Your task to perform on an android device: Open the calendar app, open the side menu, and click the "Day" option Image 0: 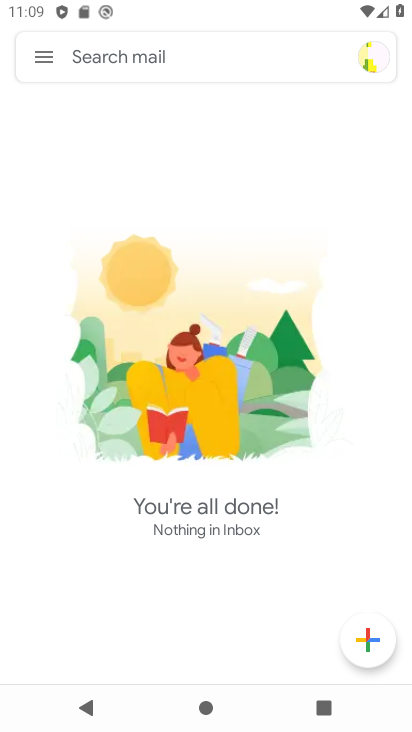
Step 0: press home button
Your task to perform on an android device: Open the calendar app, open the side menu, and click the "Day" option Image 1: 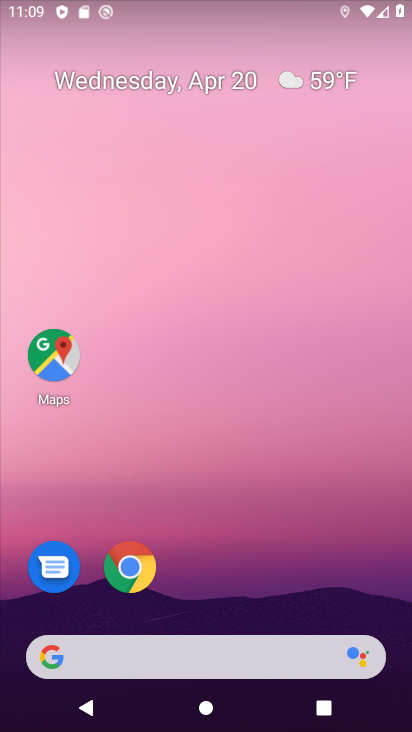
Step 1: drag from (256, 595) to (260, 152)
Your task to perform on an android device: Open the calendar app, open the side menu, and click the "Day" option Image 2: 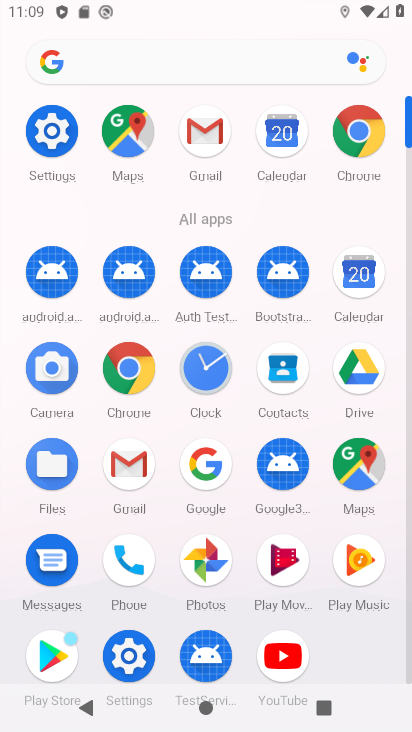
Step 2: click (347, 272)
Your task to perform on an android device: Open the calendar app, open the side menu, and click the "Day" option Image 3: 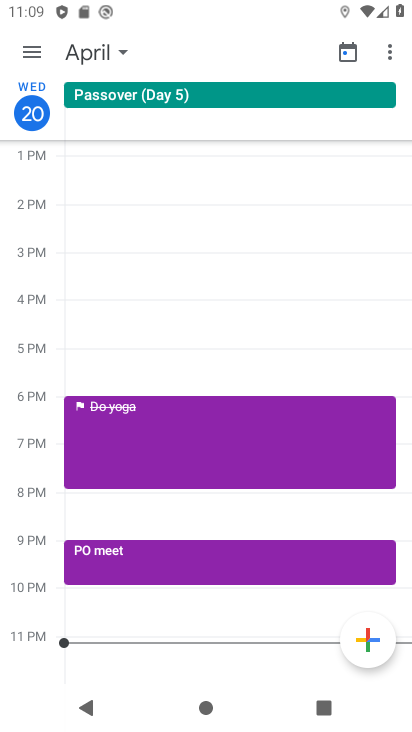
Step 3: click (15, 55)
Your task to perform on an android device: Open the calendar app, open the side menu, and click the "Day" option Image 4: 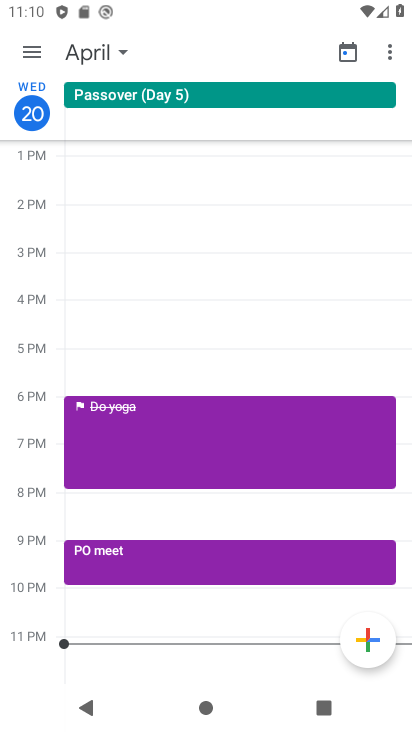
Step 4: click (20, 55)
Your task to perform on an android device: Open the calendar app, open the side menu, and click the "Day" option Image 5: 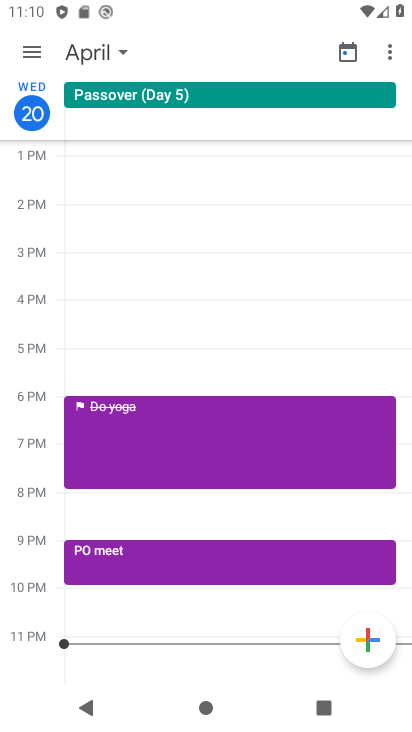
Step 5: click (37, 54)
Your task to perform on an android device: Open the calendar app, open the side menu, and click the "Day" option Image 6: 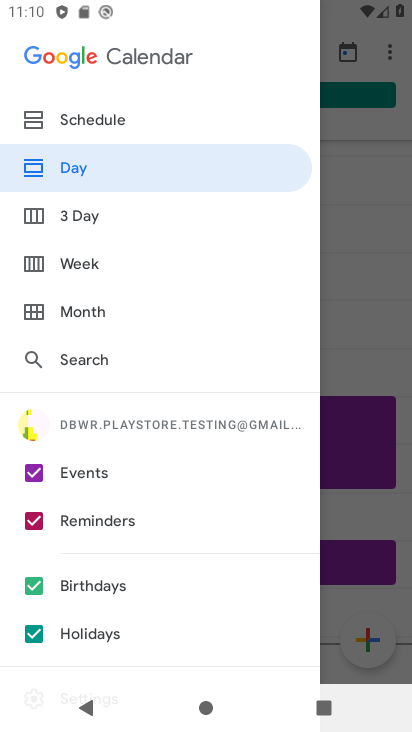
Step 6: click (123, 170)
Your task to perform on an android device: Open the calendar app, open the side menu, and click the "Day" option Image 7: 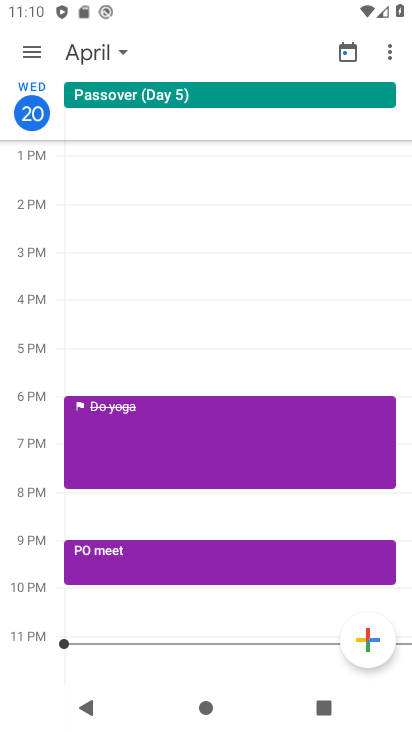
Step 7: task complete